Your task to perform on an android device: Open eBay Image 0: 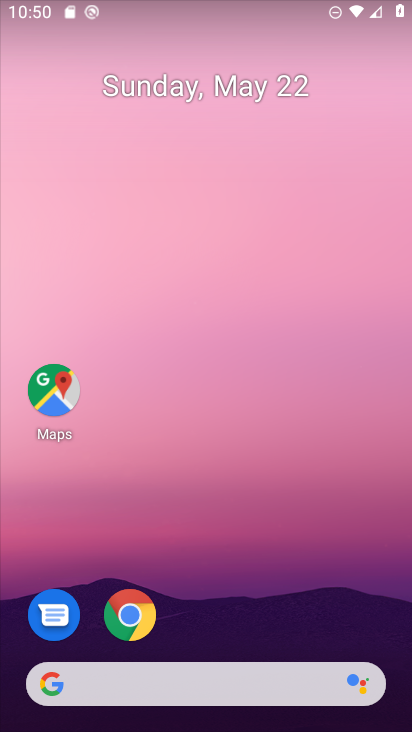
Step 0: click (129, 608)
Your task to perform on an android device: Open eBay Image 1: 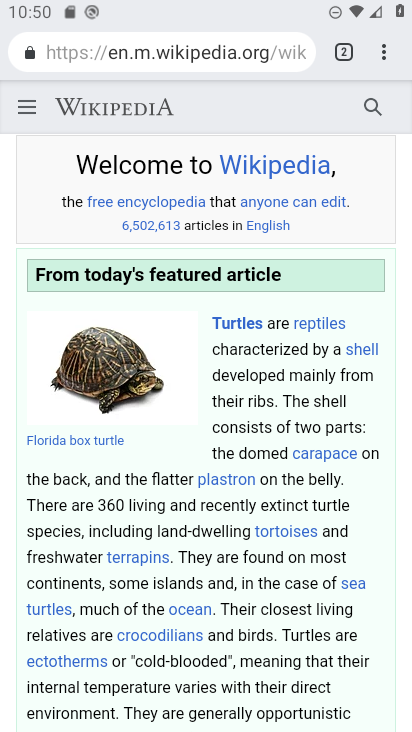
Step 1: click (224, 59)
Your task to perform on an android device: Open eBay Image 2: 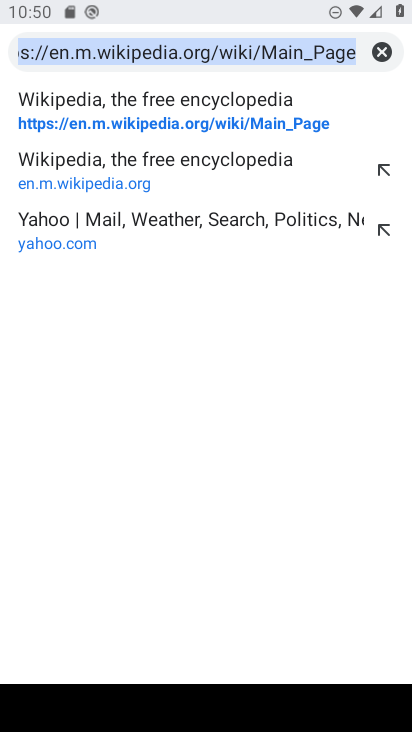
Step 2: type "ebay"
Your task to perform on an android device: Open eBay Image 3: 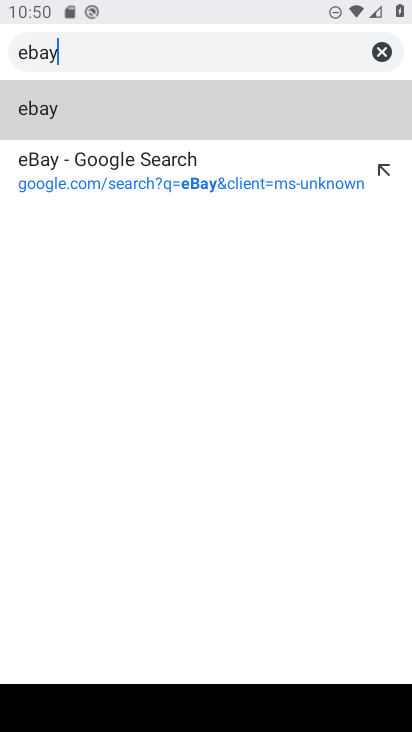
Step 3: click (40, 106)
Your task to perform on an android device: Open eBay Image 4: 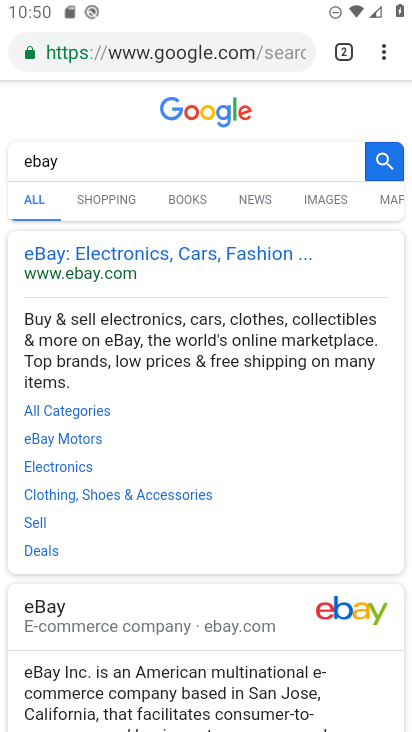
Step 4: click (137, 255)
Your task to perform on an android device: Open eBay Image 5: 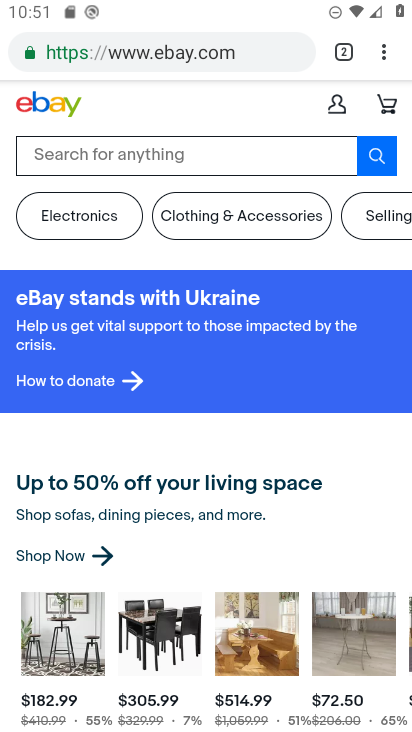
Step 5: task complete